Your task to perform on an android device: Open the Play Movies app and select the watchlist tab. Image 0: 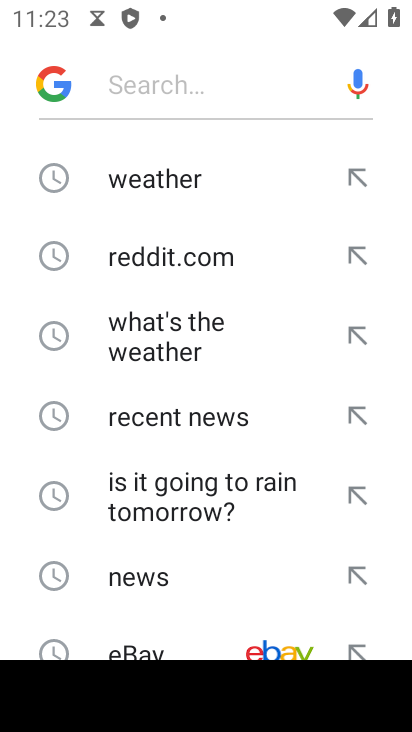
Step 0: press home button
Your task to perform on an android device: Open the Play Movies app and select the watchlist tab. Image 1: 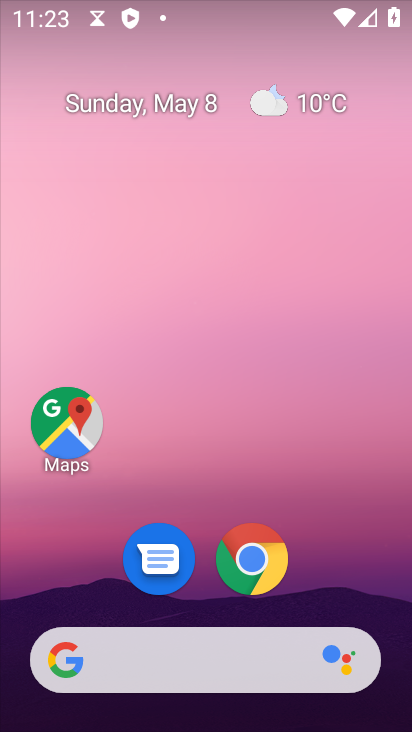
Step 1: drag from (353, 584) to (362, 1)
Your task to perform on an android device: Open the Play Movies app and select the watchlist tab. Image 2: 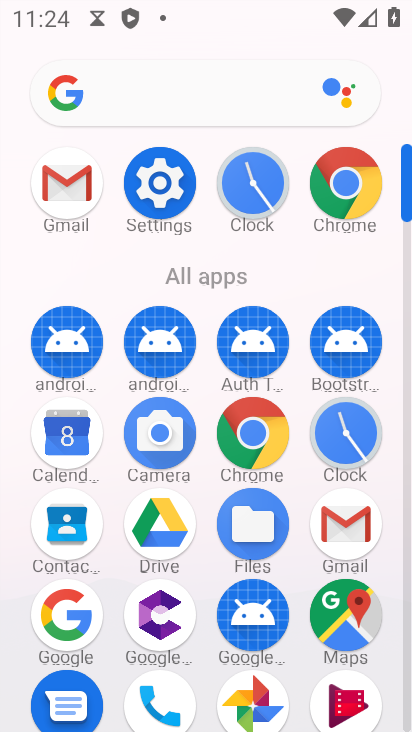
Step 2: click (362, 696)
Your task to perform on an android device: Open the Play Movies app and select the watchlist tab. Image 3: 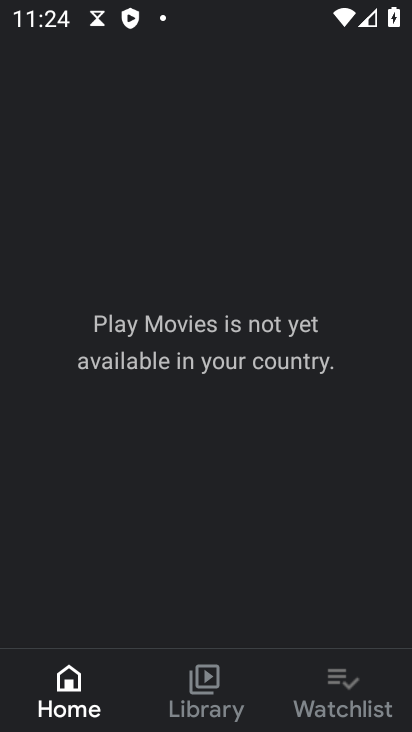
Step 3: click (316, 691)
Your task to perform on an android device: Open the Play Movies app and select the watchlist tab. Image 4: 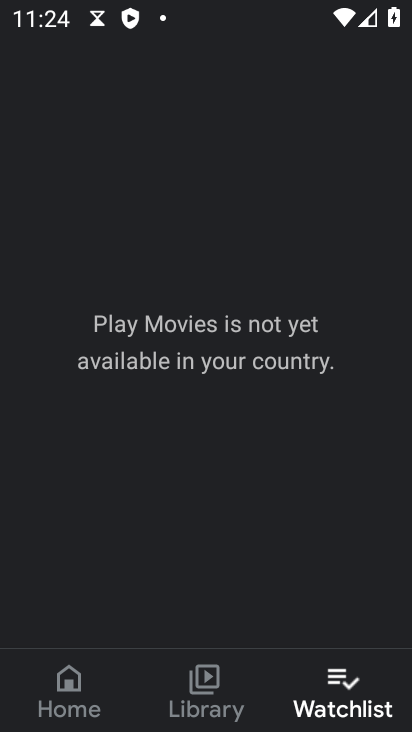
Step 4: task complete